Your task to perform on an android device: Go to battery settings Image 0: 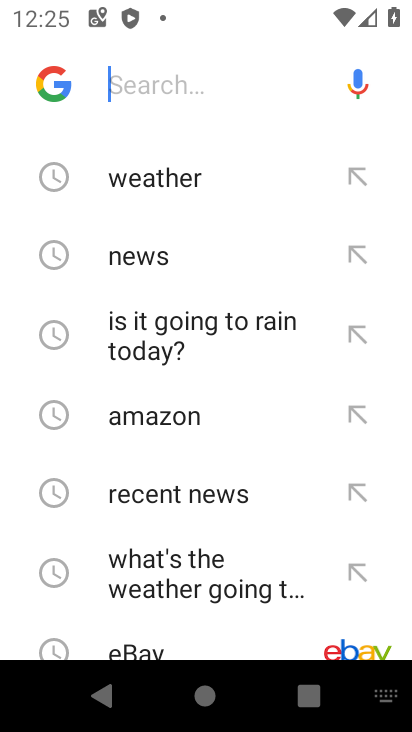
Step 0: press back button
Your task to perform on an android device: Go to battery settings Image 1: 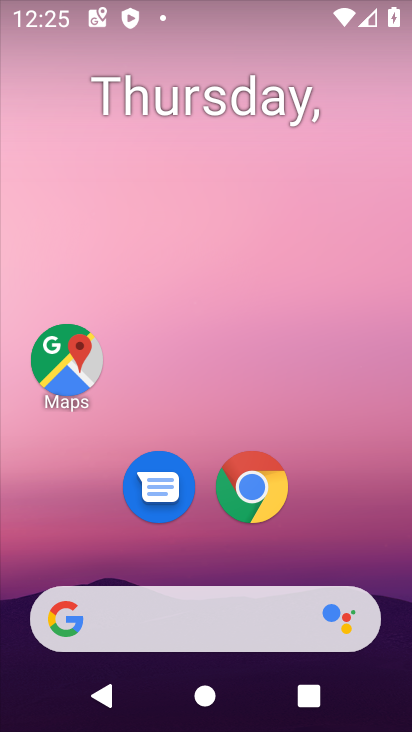
Step 1: drag from (333, 557) to (256, 26)
Your task to perform on an android device: Go to battery settings Image 2: 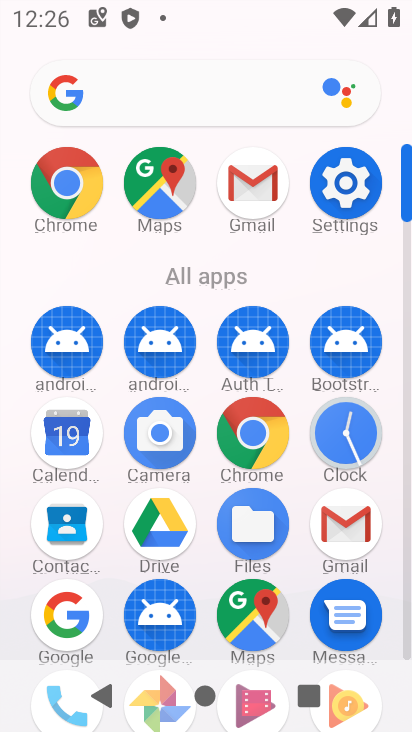
Step 2: click (335, 175)
Your task to perform on an android device: Go to battery settings Image 3: 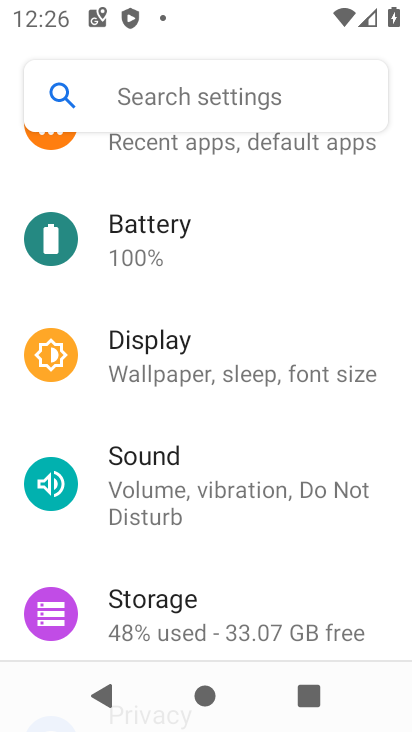
Step 3: click (271, 259)
Your task to perform on an android device: Go to battery settings Image 4: 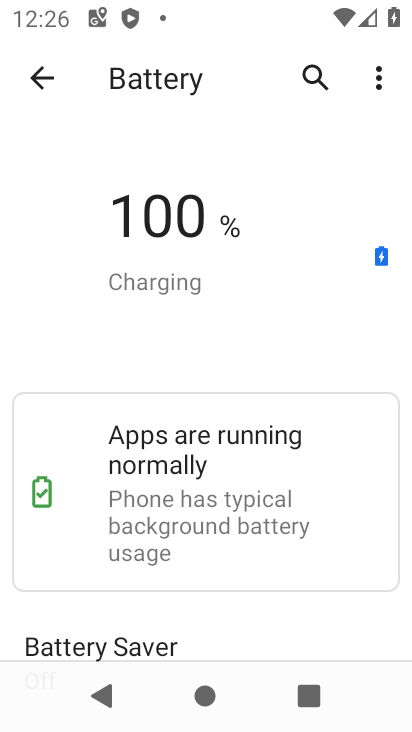
Step 4: task complete